Your task to perform on an android device: Go to CNN.com Image 0: 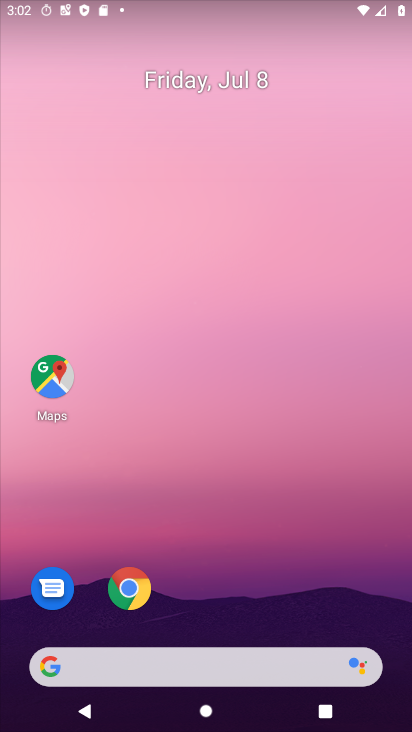
Step 0: press home button
Your task to perform on an android device: Go to CNN.com Image 1: 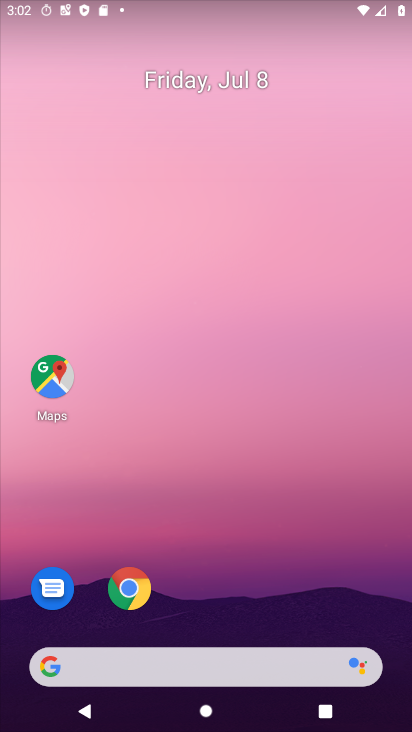
Step 1: click (41, 659)
Your task to perform on an android device: Go to CNN.com Image 2: 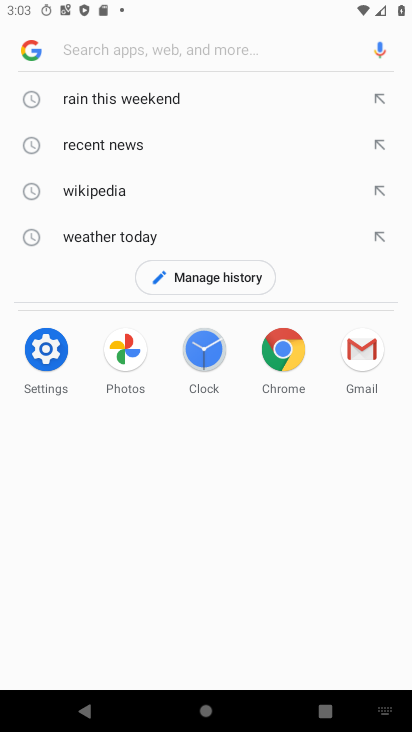
Step 2: type "CNN.com"
Your task to perform on an android device: Go to CNN.com Image 3: 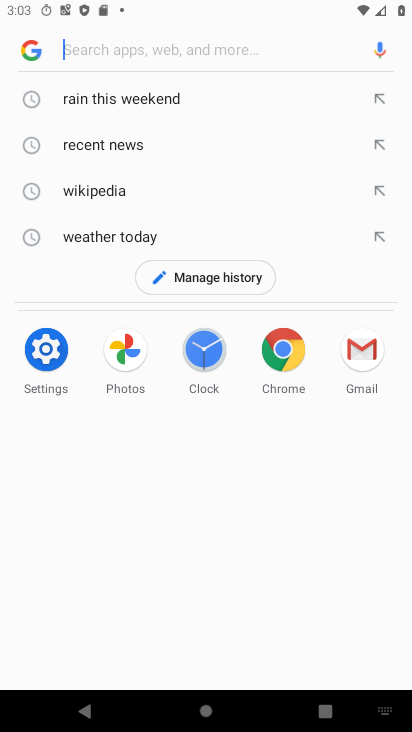
Step 3: click (154, 42)
Your task to perform on an android device: Go to CNN.com Image 4: 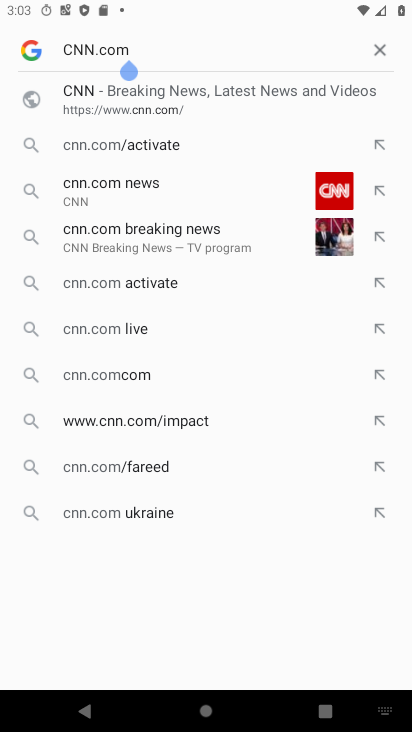
Step 4: click (77, 95)
Your task to perform on an android device: Go to CNN.com Image 5: 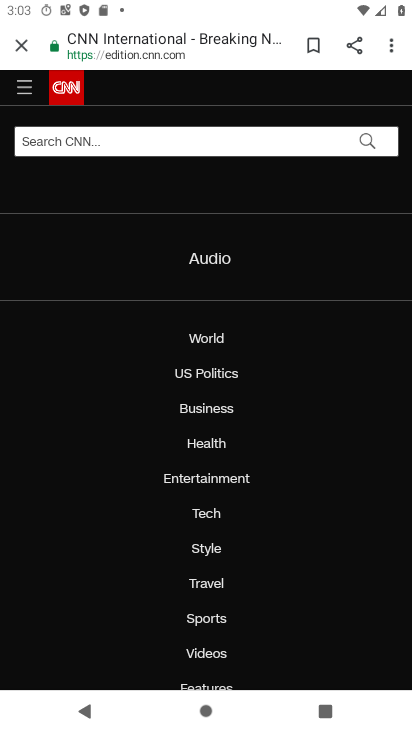
Step 5: task complete